Your task to perform on an android device: clear history in the chrome app Image 0: 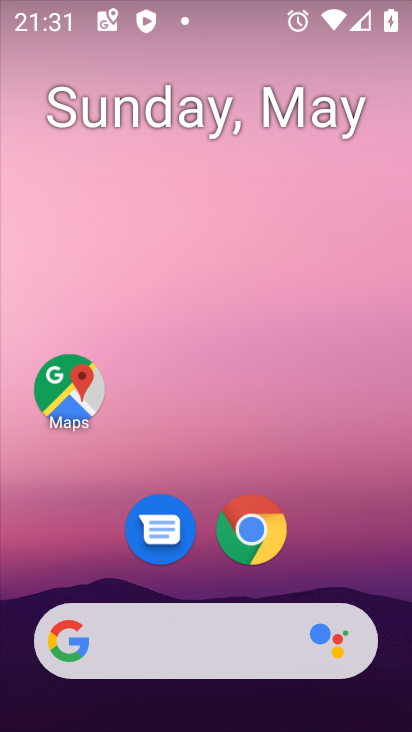
Step 0: click (252, 526)
Your task to perform on an android device: clear history in the chrome app Image 1: 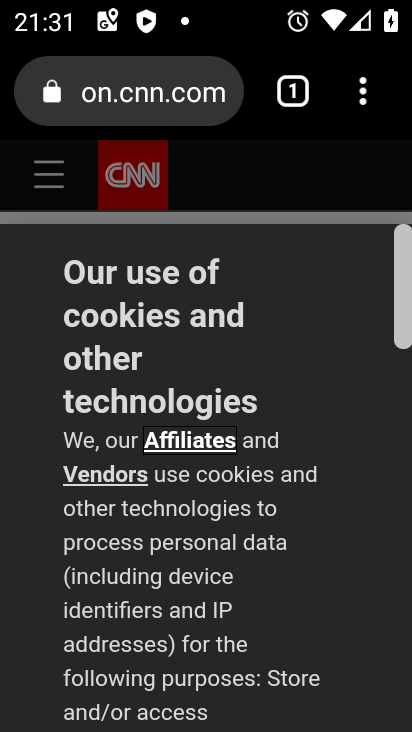
Step 1: click (365, 98)
Your task to perform on an android device: clear history in the chrome app Image 2: 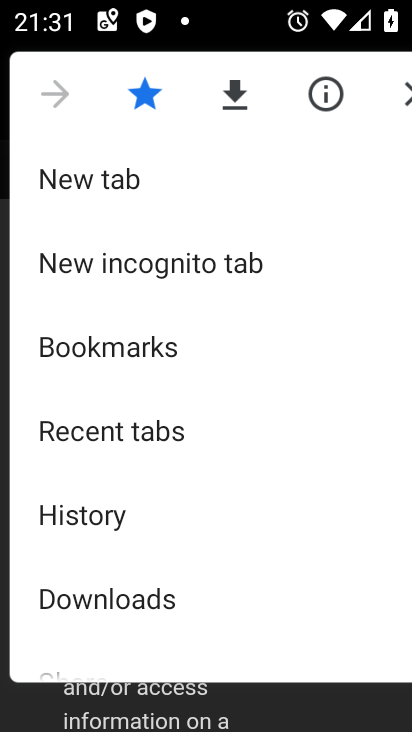
Step 2: drag from (236, 588) to (214, 69)
Your task to perform on an android device: clear history in the chrome app Image 3: 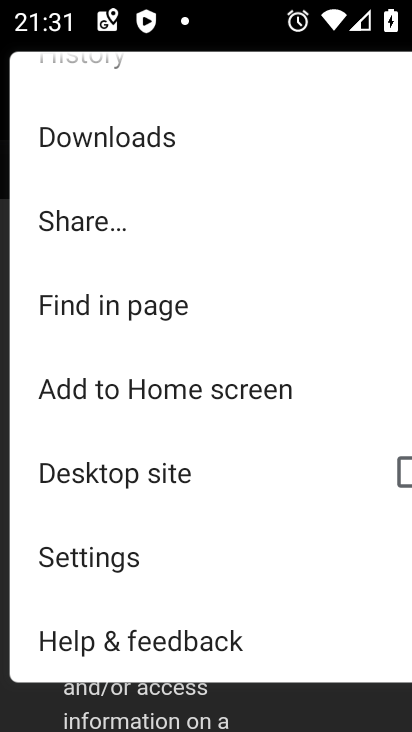
Step 3: click (80, 560)
Your task to perform on an android device: clear history in the chrome app Image 4: 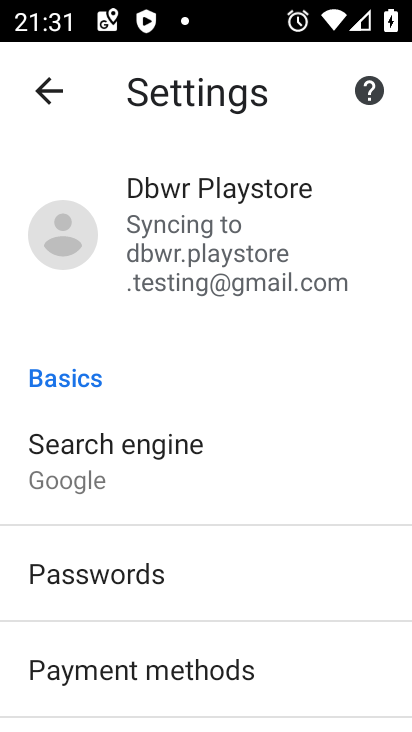
Step 4: drag from (210, 579) to (193, 162)
Your task to perform on an android device: clear history in the chrome app Image 5: 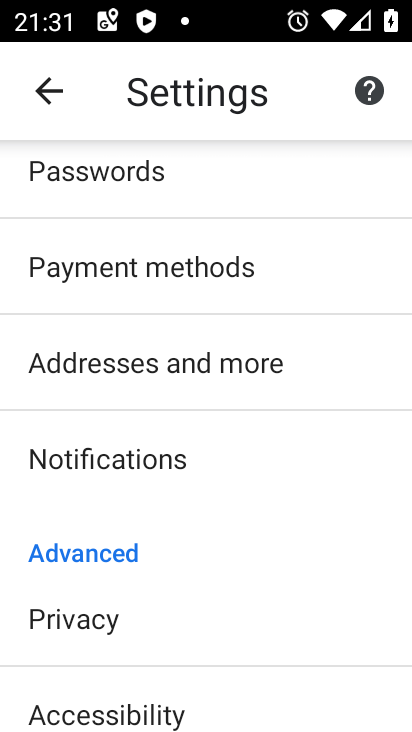
Step 5: click (70, 625)
Your task to perform on an android device: clear history in the chrome app Image 6: 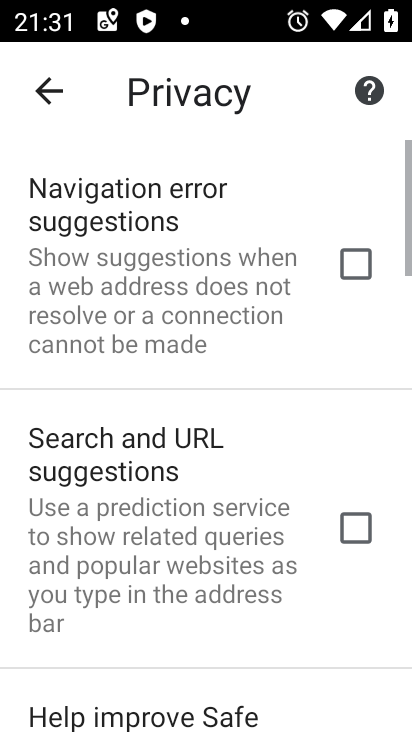
Step 6: drag from (172, 636) to (162, 102)
Your task to perform on an android device: clear history in the chrome app Image 7: 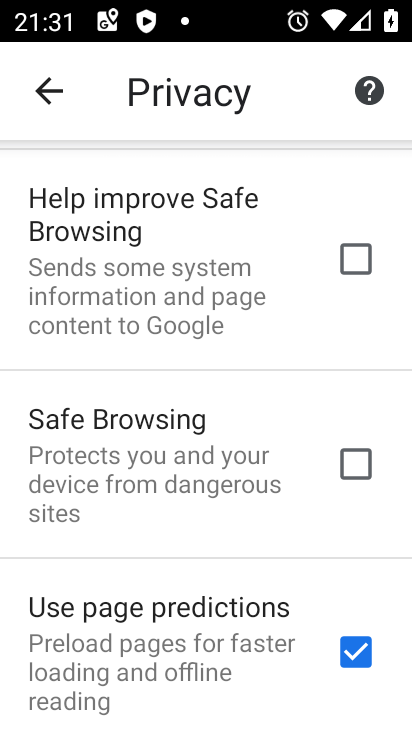
Step 7: drag from (113, 508) to (125, 64)
Your task to perform on an android device: clear history in the chrome app Image 8: 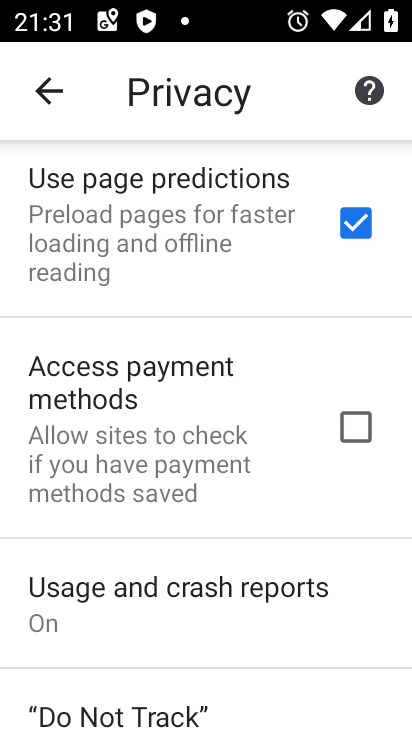
Step 8: drag from (52, 545) to (81, 133)
Your task to perform on an android device: clear history in the chrome app Image 9: 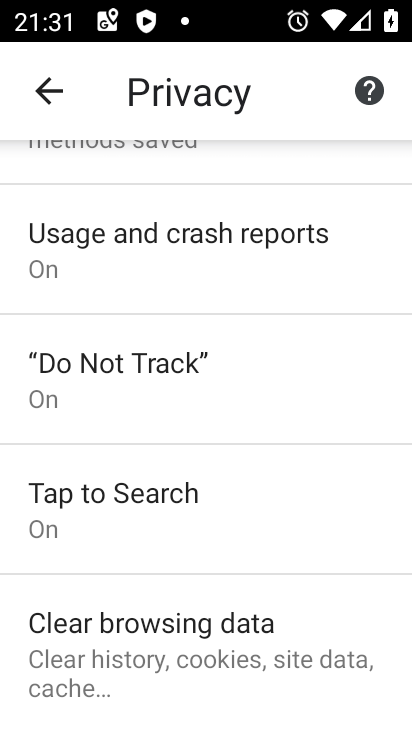
Step 9: click (188, 641)
Your task to perform on an android device: clear history in the chrome app Image 10: 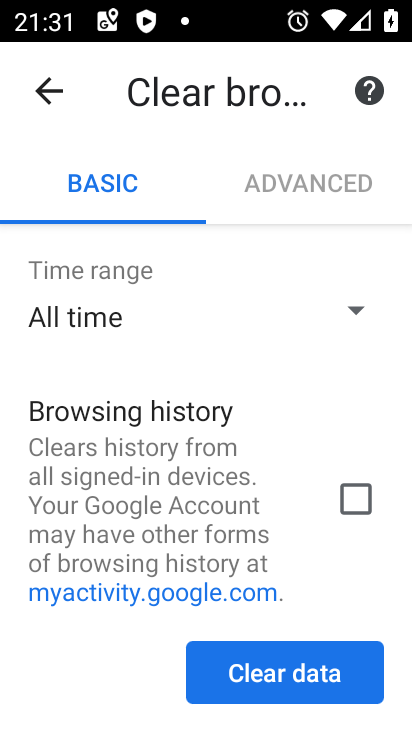
Step 10: drag from (202, 492) to (199, 324)
Your task to perform on an android device: clear history in the chrome app Image 11: 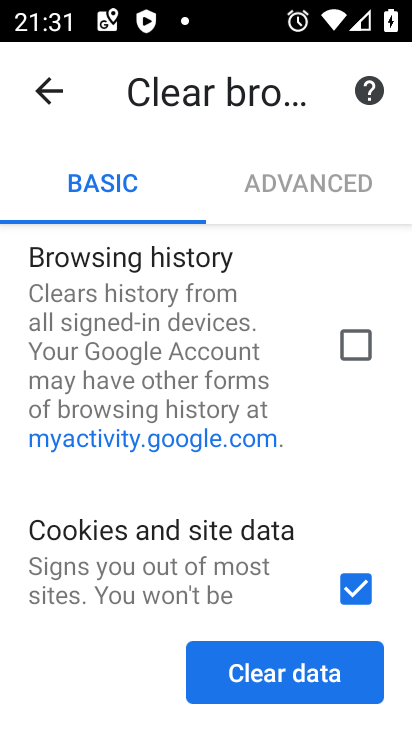
Step 11: click (343, 347)
Your task to perform on an android device: clear history in the chrome app Image 12: 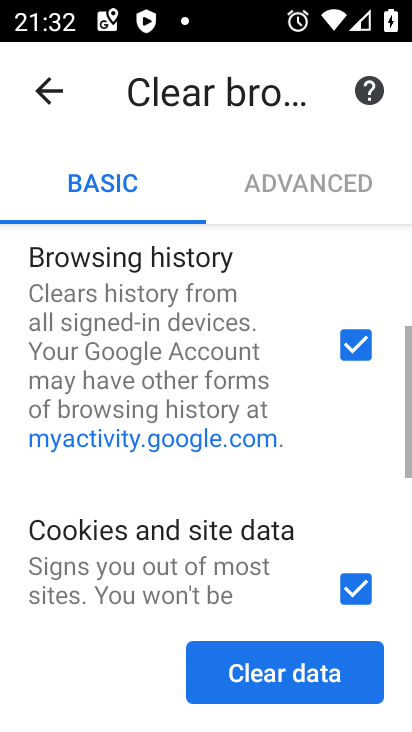
Step 12: click (359, 587)
Your task to perform on an android device: clear history in the chrome app Image 13: 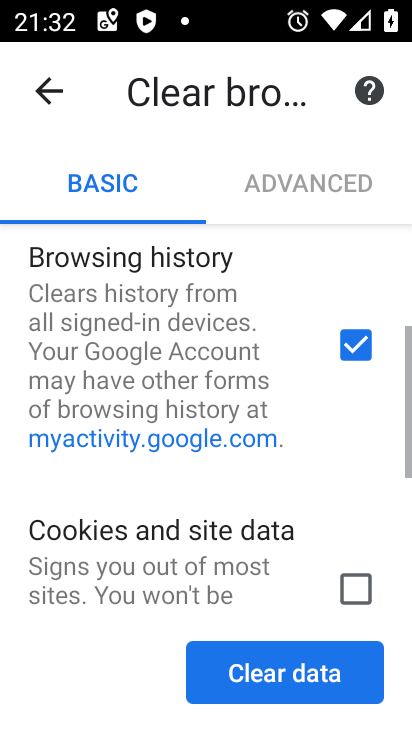
Step 13: drag from (126, 592) to (83, 199)
Your task to perform on an android device: clear history in the chrome app Image 14: 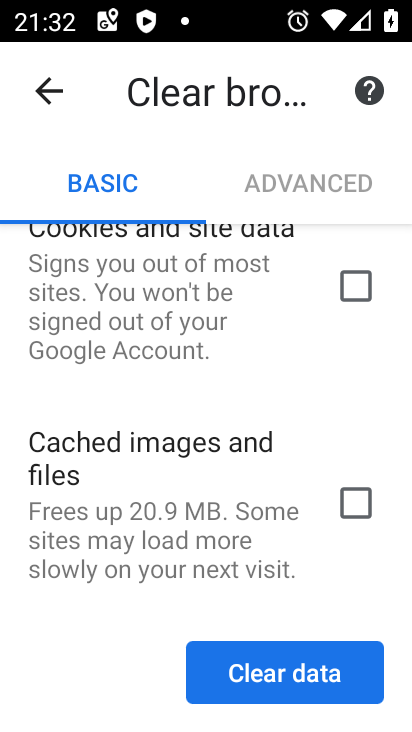
Step 14: click (253, 667)
Your task to perform on an android device: clear history in the chrome app Image 15: 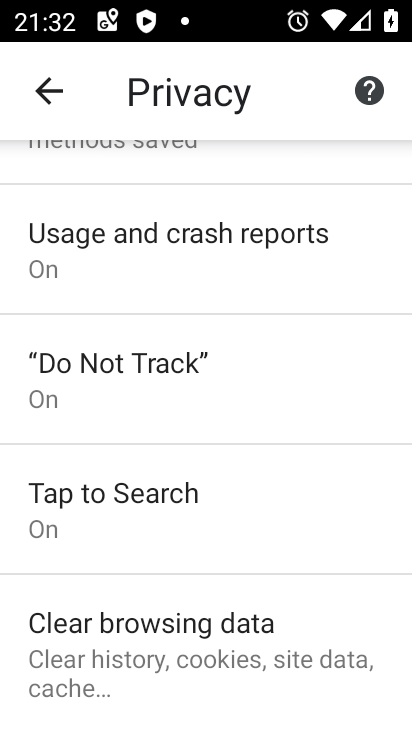
Step 15: task complete